Your task to perform on an android device: Is it going to rain today? Image 0: 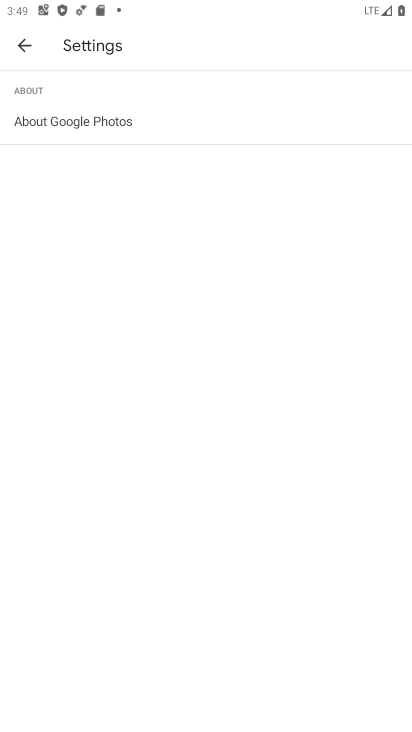
Step 0: press home button
Your task to perform on an android device: Is it going to rain today? Image 1: 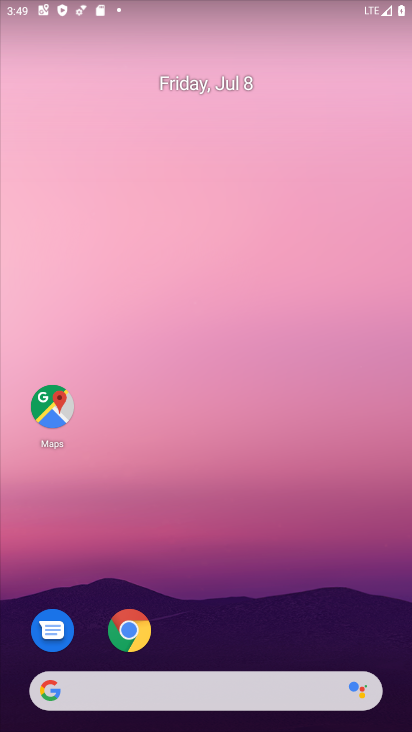
Step 1: drag from (216, 664) to (193, 148)
Your task to perform on an android device: Is it going to rain today? Image 2: 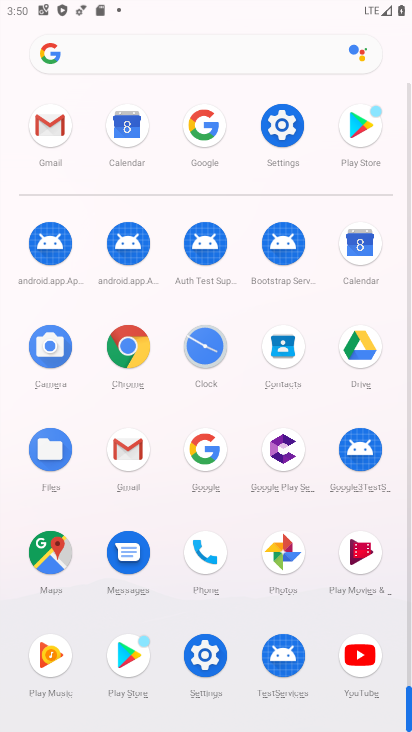
Step 2: click (202, 121)
Your task to perform on an android device: Is it going to rain today? Image 3: 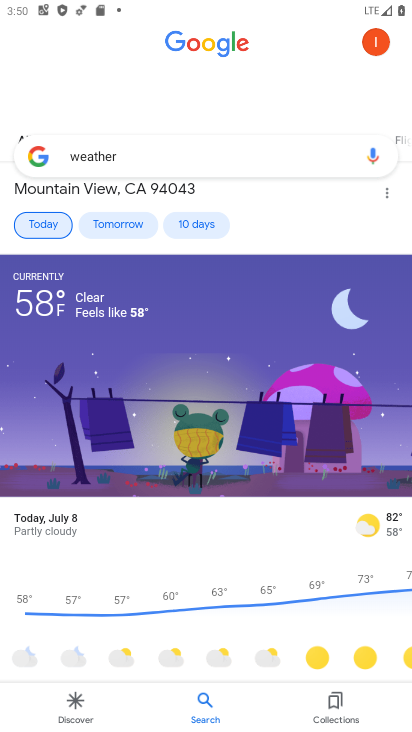
Step 3: click (211, 153)
Your task to perform on an android device: Is it going to rain today? Image 4: 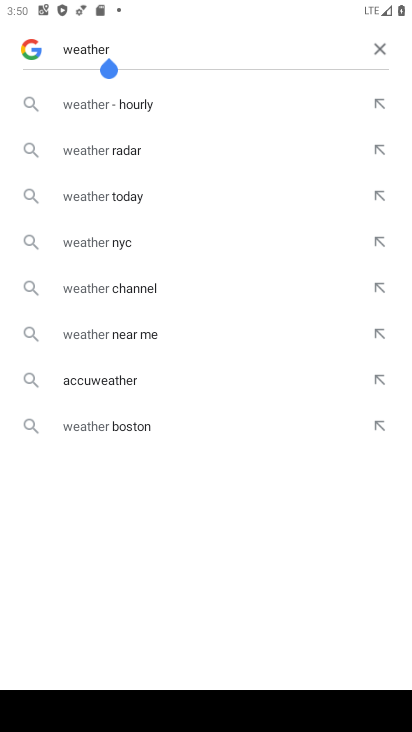
Step 4: click (379, 48)
Your task to perform on an android device: Is it going to rain today? Image 5: 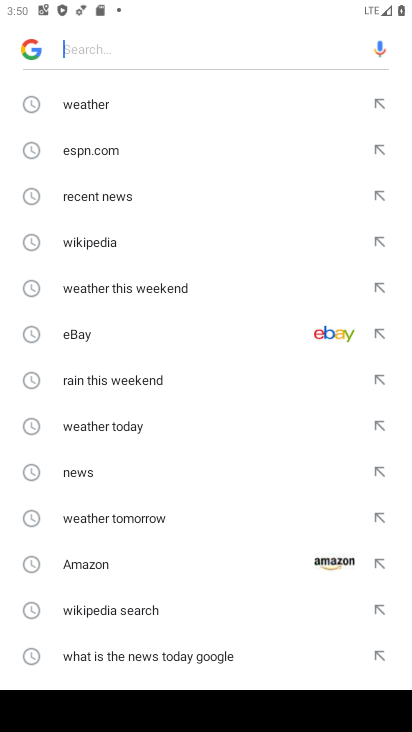
Step 5: type "is it going to rain today?"
Your task to perform on an android device: Is it going to rain today? Image 6: 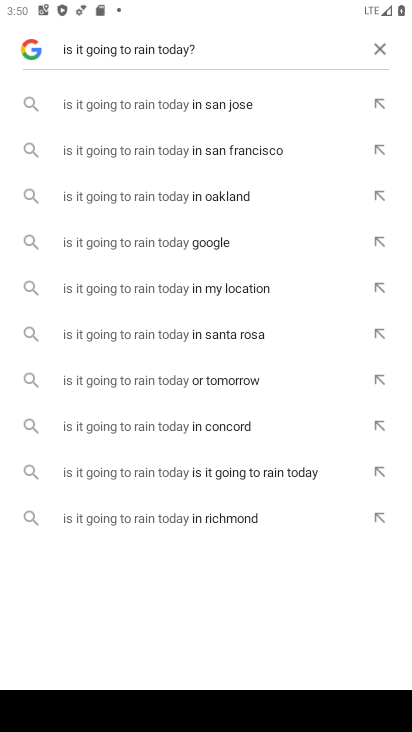
Step 6: click (169, 113)
Your task to perform on an android device: Is it going to rain today? Image 7: 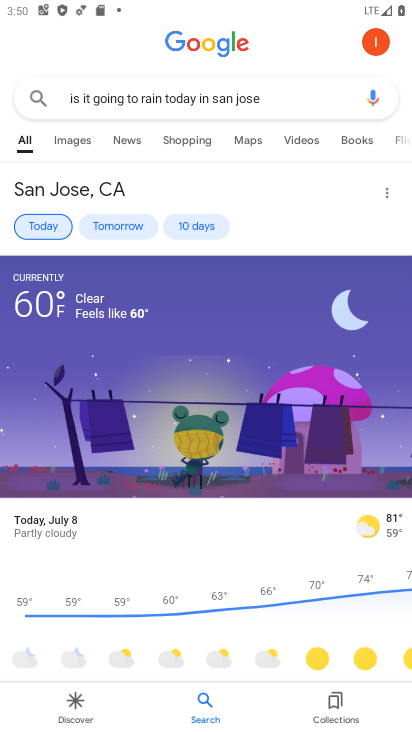
Step 7: task complete